Your task to perform on an android device: Search for the new Apple Watch on Best Buy Image 0: 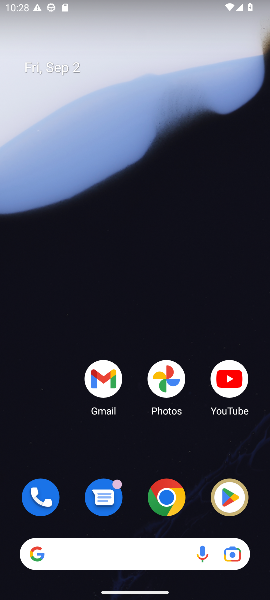
Step 0: click (174, 505)
Your task to perform on an android device: Search for the new Apple Watch on Best Buy Image 1: 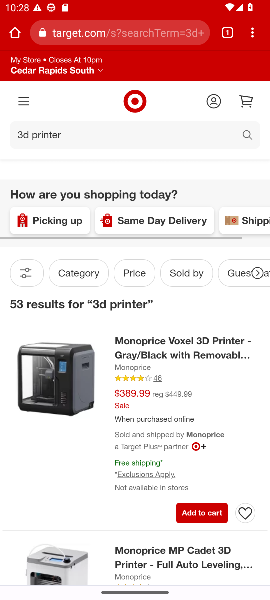
Step 1: click (149, 39)
Your task to perform on an android device: Search for the new Apple Watch on Best Buy Image 2: 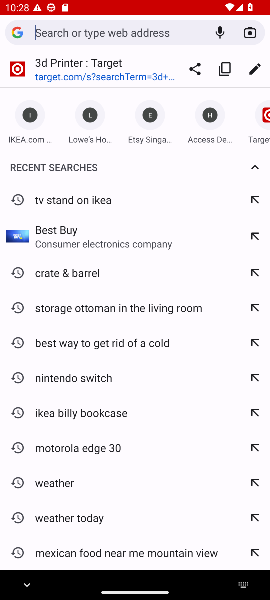
Step 2: type "best buy"
Your task to perform on an android device: Search for the new Apple Watch on Best Buy Image 3: 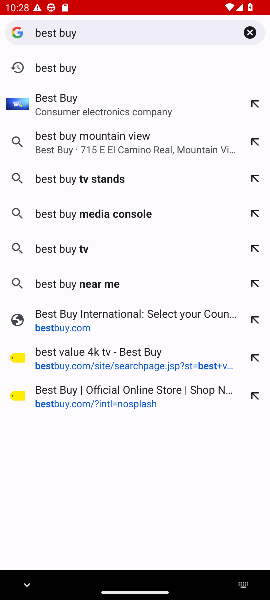
Step 3: click (94, 61)
Your task to perform on an android device: Search for the new Apple Watch on Best Buy Image 4: 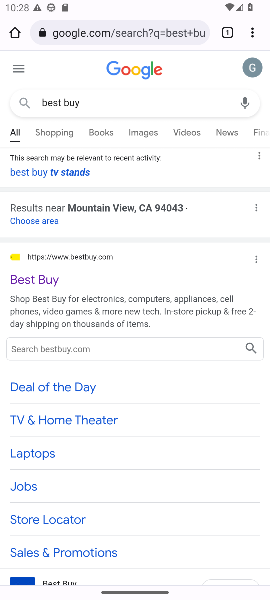
Step 4: click (42, 284)
Your task to perform on an android device: Search for the new Apple Watch on Best Buy Image 5: 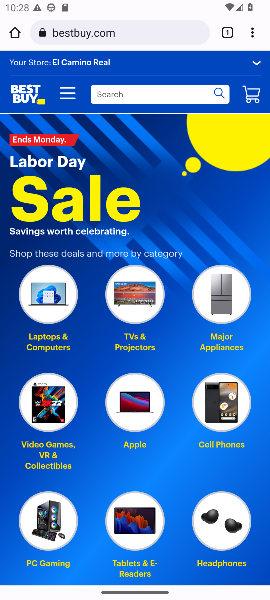
Step 5: click (156, 96)
Your task to perform on an android device: Search for the new Apple Watch on Best Buy Image 6: 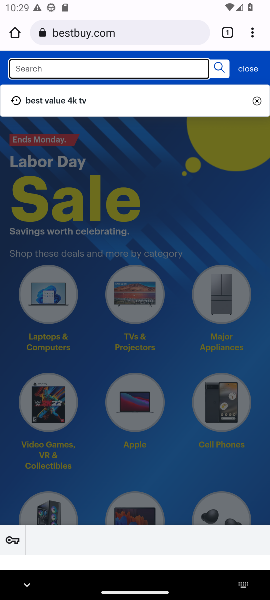
Step 6: type "apple watch"
Your task to perform on an android device: Search for the new Apple Watch on Best Buy Image 7: 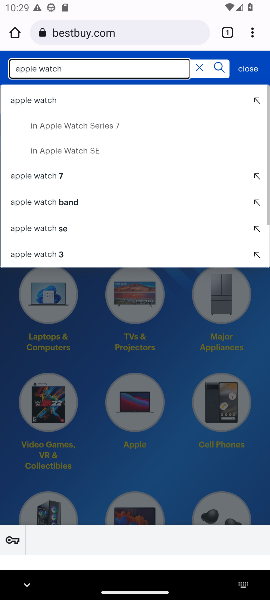
Step 7: press enter
Your task to perform on an android device: Search for the new Apple Watch on Best Buy Image 8: 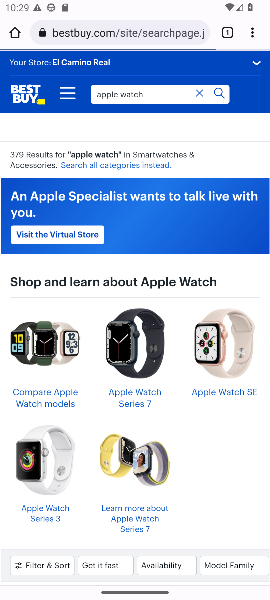
Step 8: task complete